Your task to perform on an android device: change the clock display to digital Image 0: 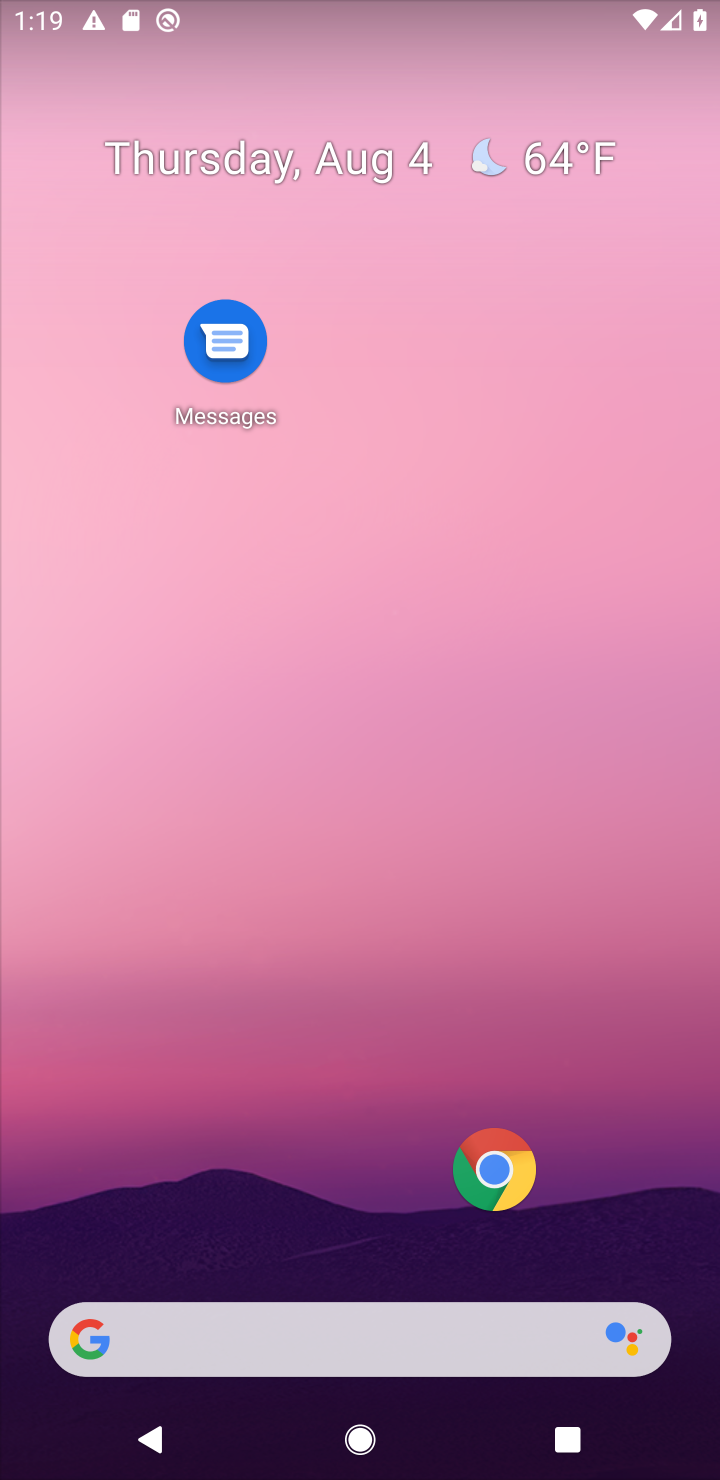
Step 0: drag from (250, 1073) to (278, 418)
Your task to perform on an android device: change the clock display to digital Image 1: 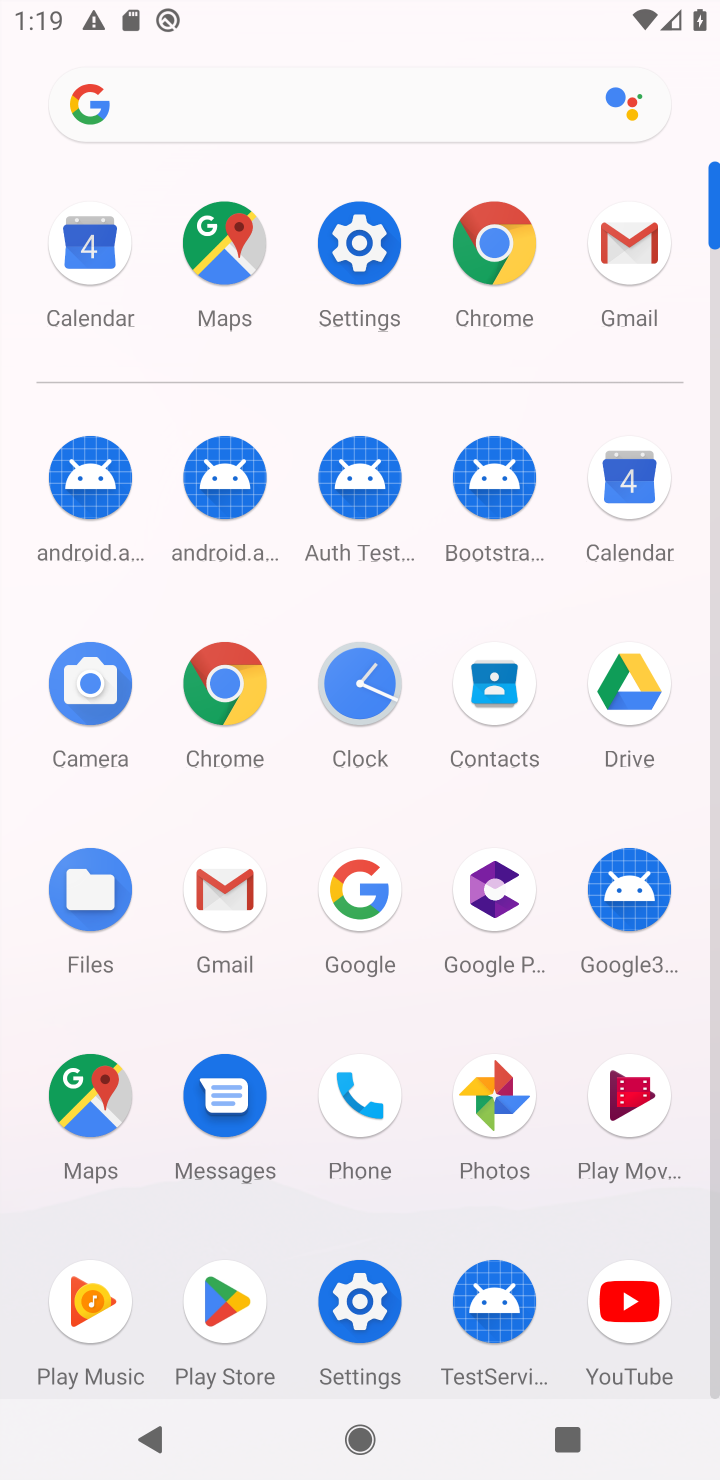
Step 1: click (370, 688)
Your task to perform on an android device: change the clock display to digital Image 2: 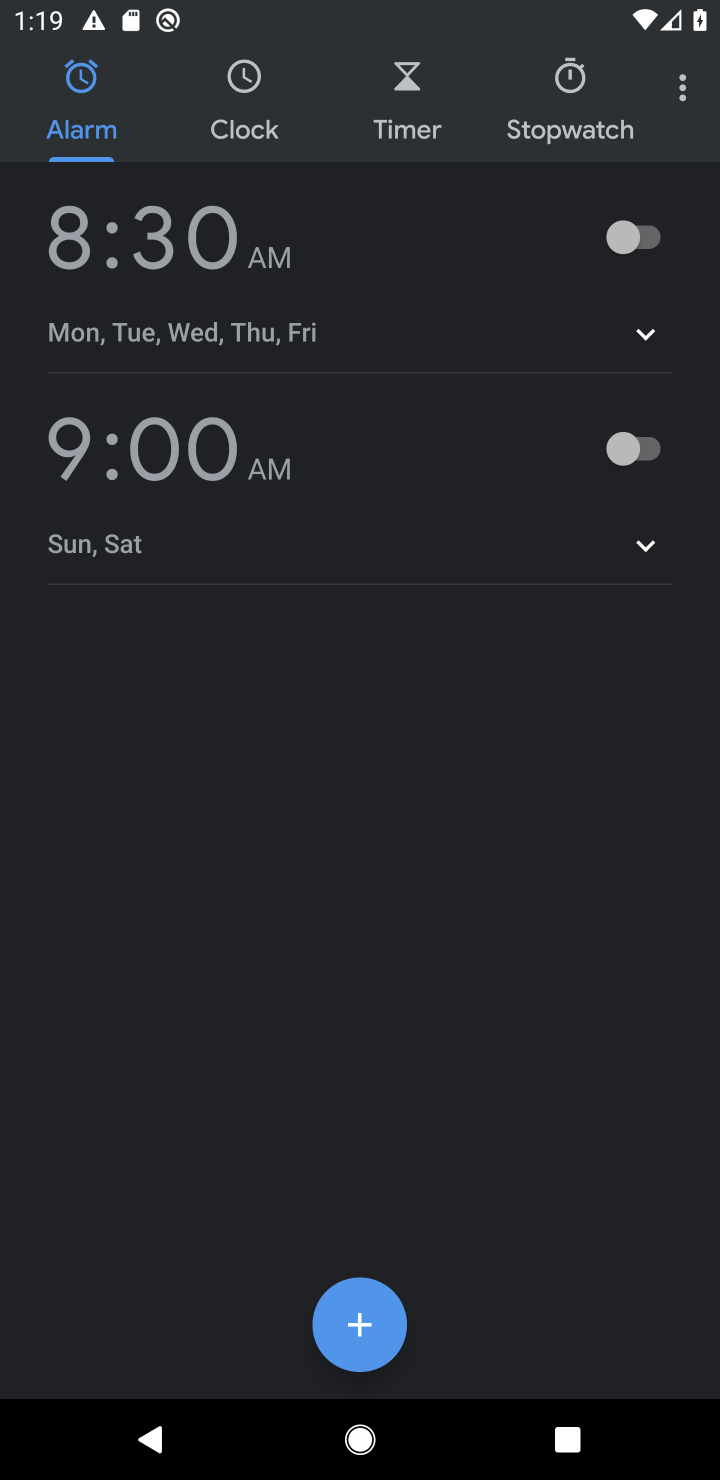
Step 2: click (676, 84)
Your task to perform on an android device: change the clock display to digital Image 3: 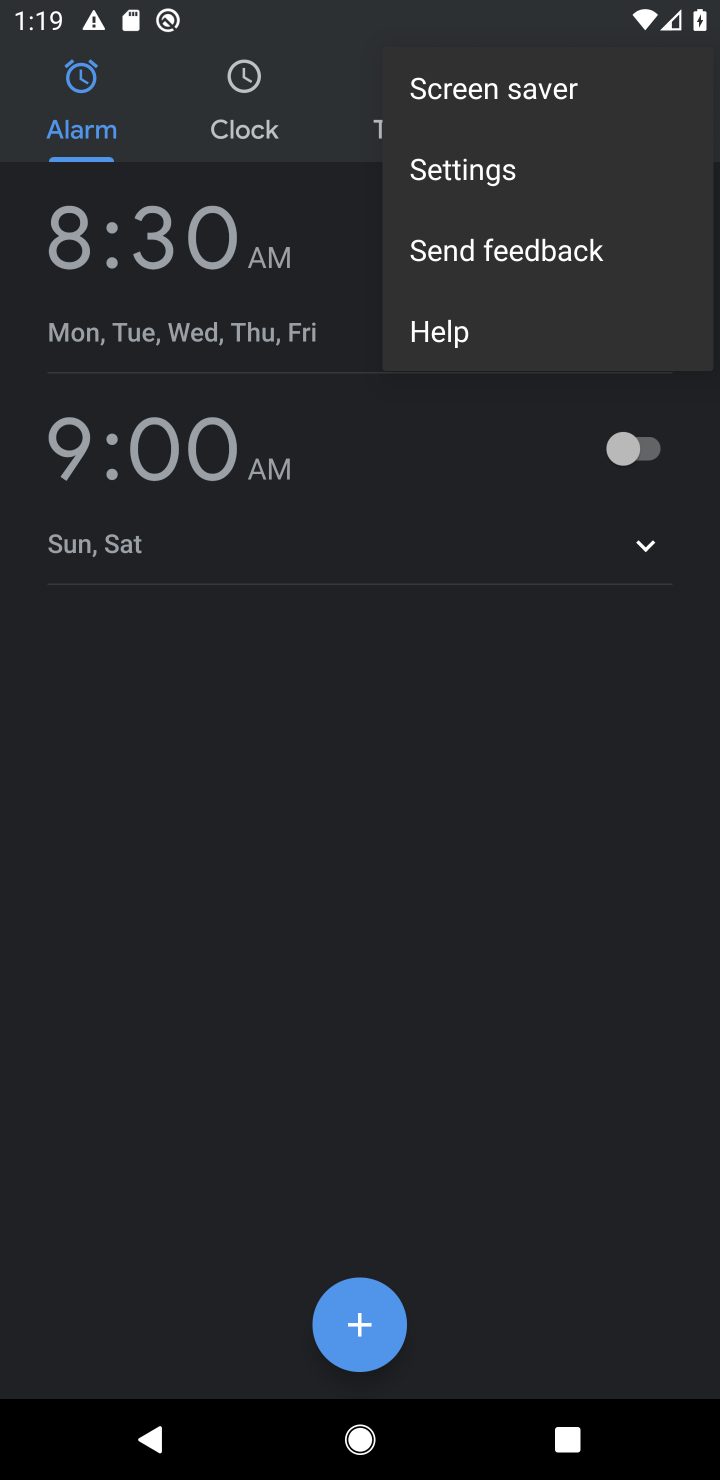
Step 3: click (485, 184)
Your task to perform on an android device: change the clock display to digital Image 4: 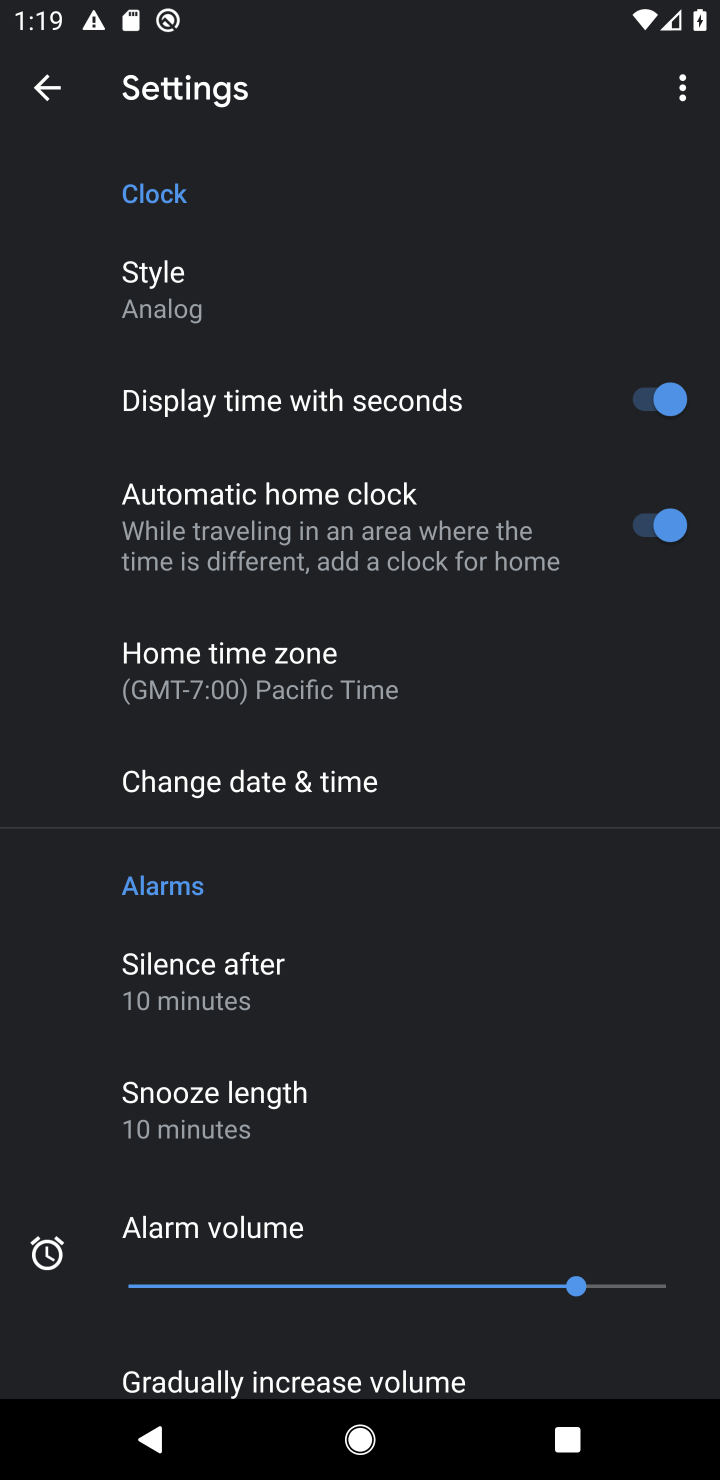
Step 4: click (213, 315)
Your task to perform on an android device: change the clock display to digital Image 5: 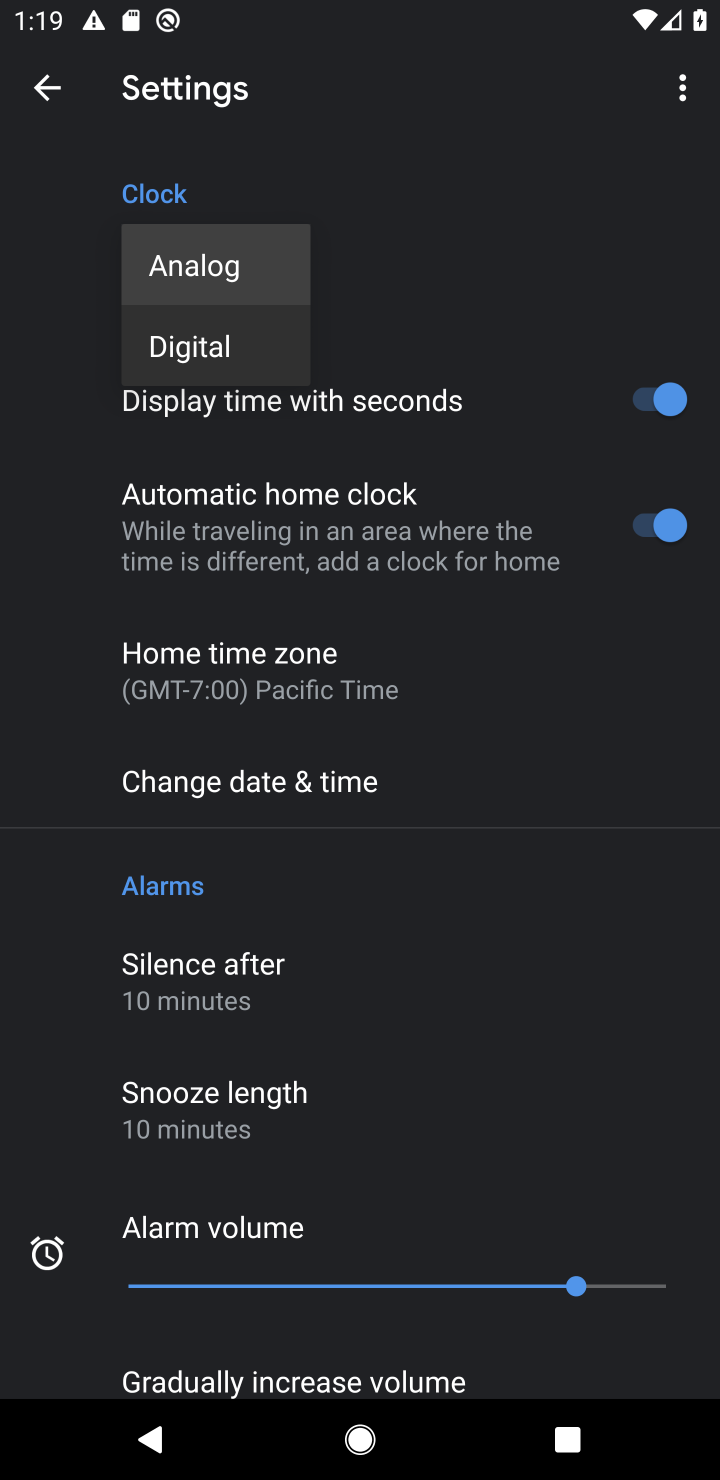
Step 5: click (230, 345)
Your task to perform on an android device: change the clock display to digital Image 6: 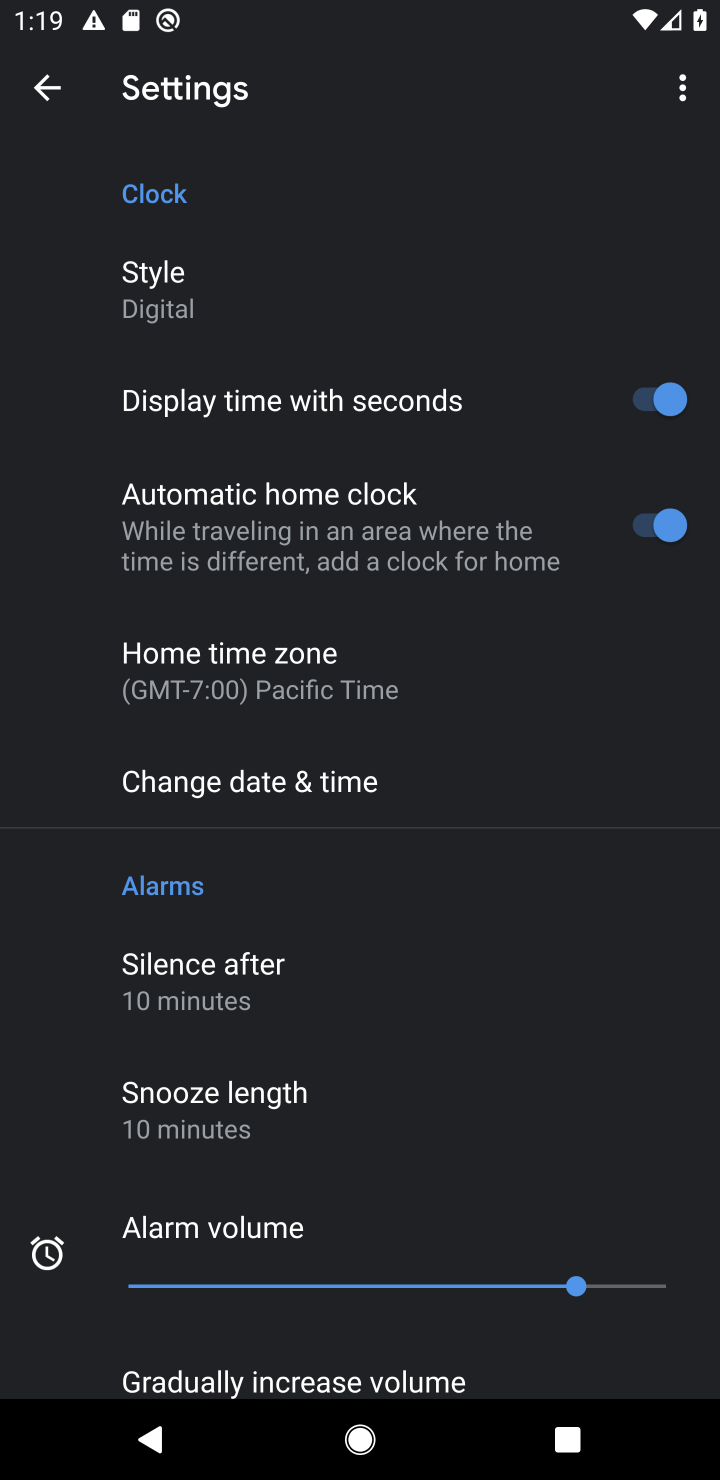
Step 6: task complete